Your task to perform on an android device: Go to Amazon Image 0: 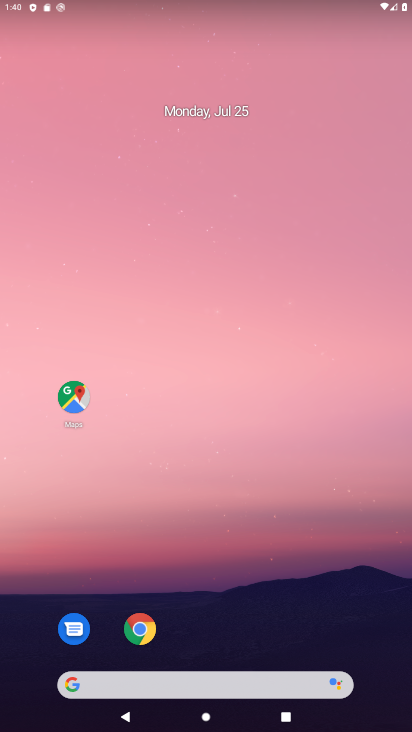
Step 0: drag from (275, 596) to (302, 38)
Your task to perform on an android device: Go to Amazon Image 1: 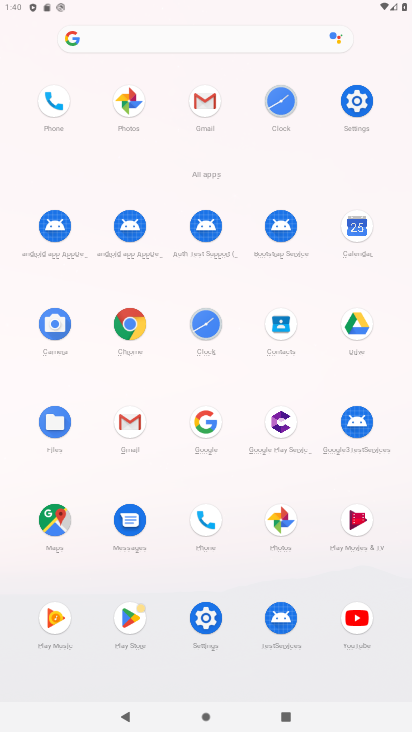
Step 1: click (126, 350)
Your task to perform on an android device: Go to Amazon Image 2: 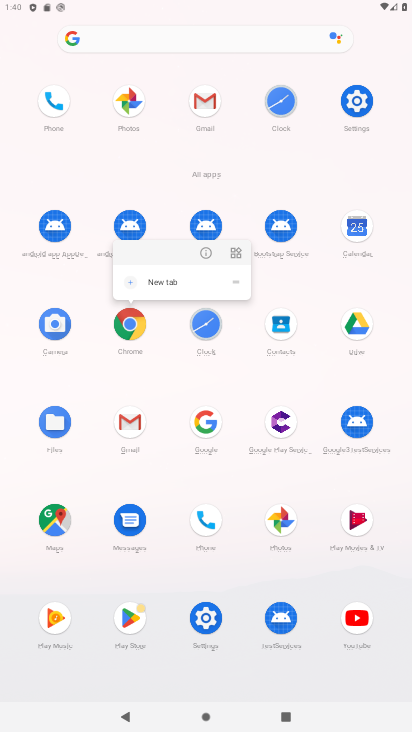
Step 2: click (135, 336)
Your task to perform on an android device: Go to Amazon Image 3: 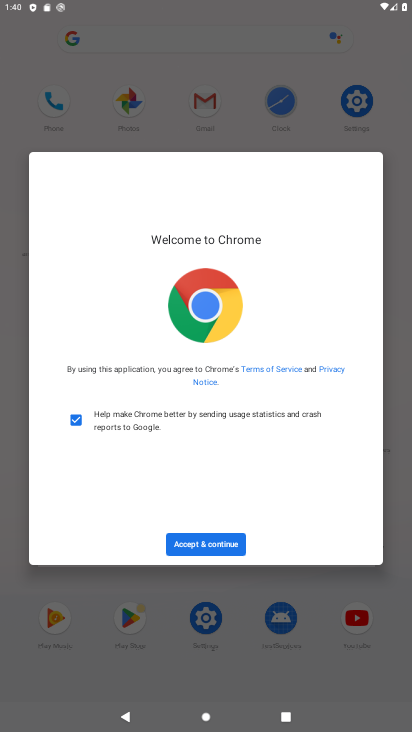
Step 3: click (197, 532)
Your task to perform on an android device: Go to Amazon Image 4: 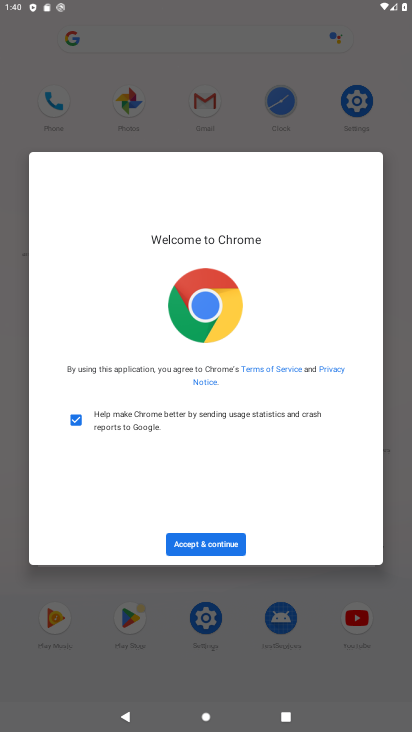
Step 4: click (215, 546)
Your task to perform on an android device: Go to Amazon Image 5: 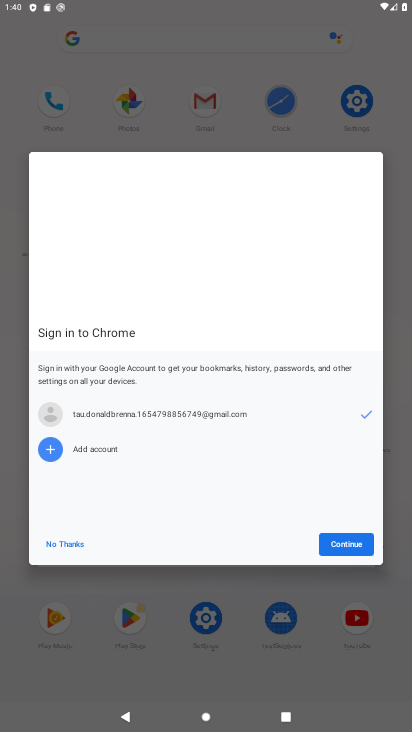
Step 5: click (80, 551)
Your task to perform on an android device: Go to Amazon Image 6: 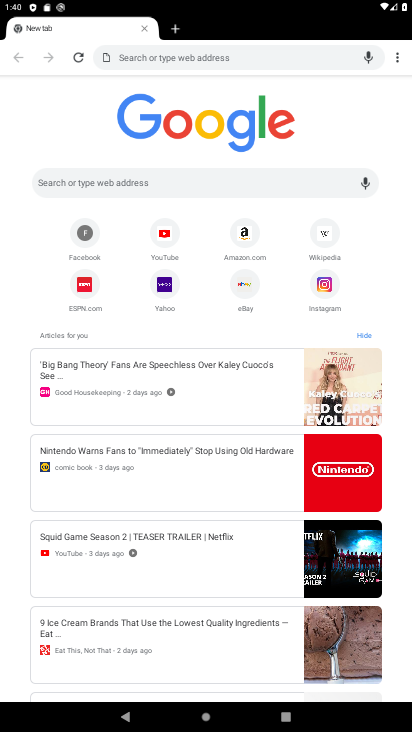
Step 6: click (231, 221)
Your task to perform on an android device: Go to Amazon Image 7: 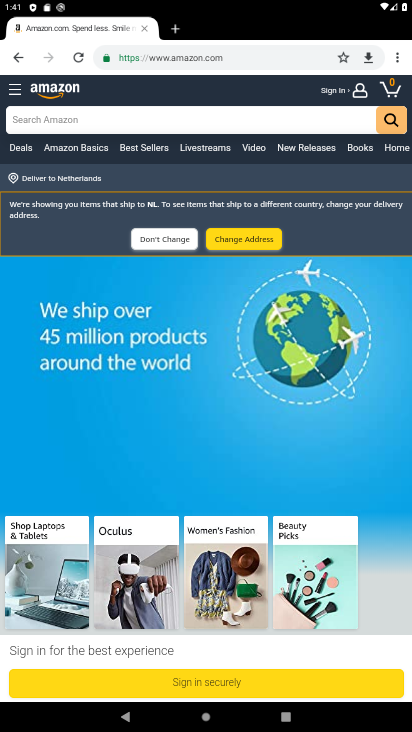
Step 7: task complete